Your task to perform on an android device: snooze an email in the gmail app Image 0: 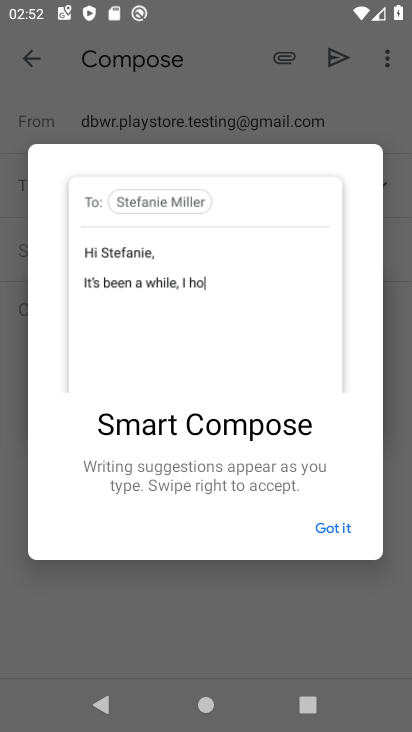
Step 0: press home button
Your task to perform on an android device: snooze an email in the gmail app Image 1: 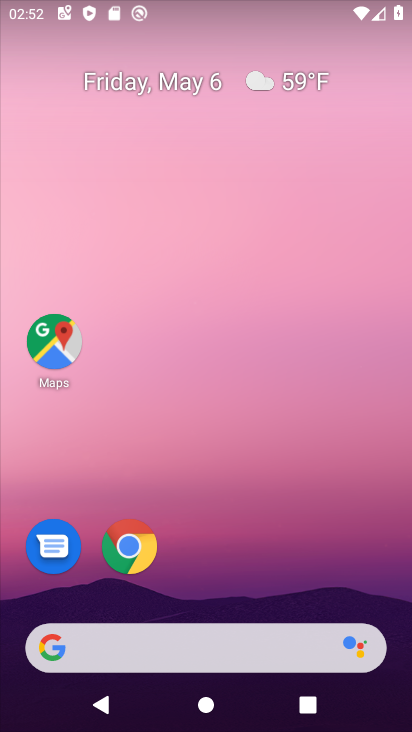
Step 1: drag from (192, 590) to (236, 263)
Your task to perform on an android device: snooze an email in the gmail app Image 2: 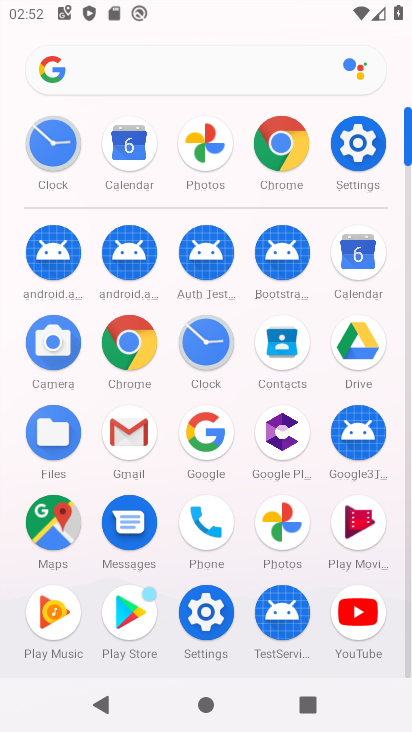
Step 2: click (132, 431)
Your task to perform on an android device: snooze an email in the gmail app Image 3: 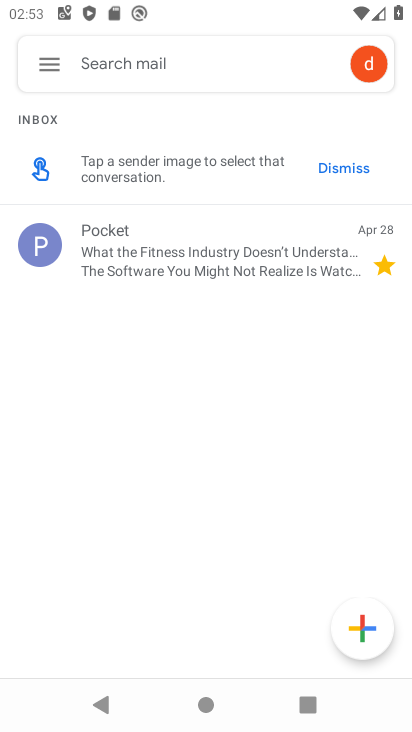
Step 3: click (319, 255)
Your task to perform on an android device: snooze an email in the gmail app Image 4: 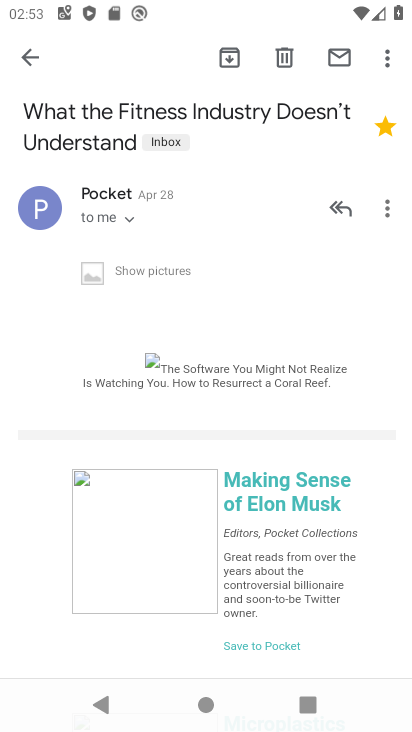
Step 4: click (390, 65)
Your task to perform on an android device: snooze an email in the gmail app Image 5: 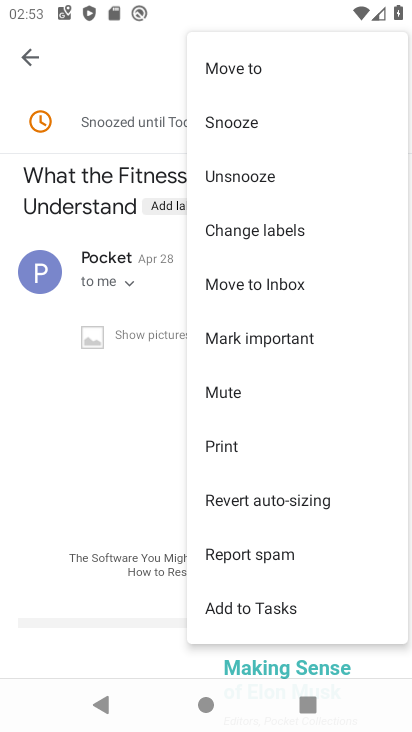
Step 5: click (236, 121)
Your task to perform on an android device: snooze an email in the gmail app Image 6: 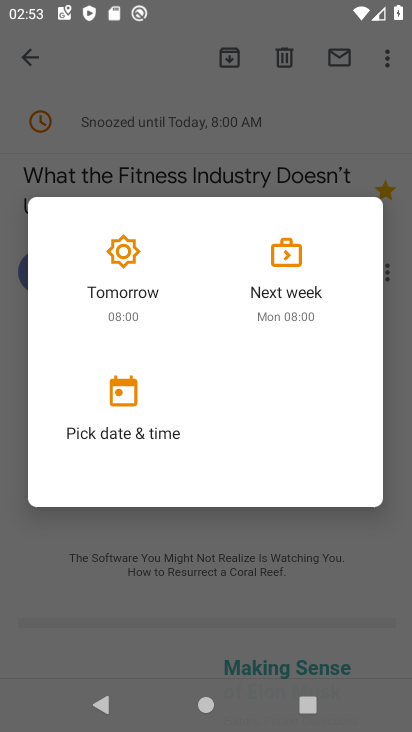
Step 6: click (287, 266)
Your task to perform on an android device: snooze an email in the gmail app Image 7: 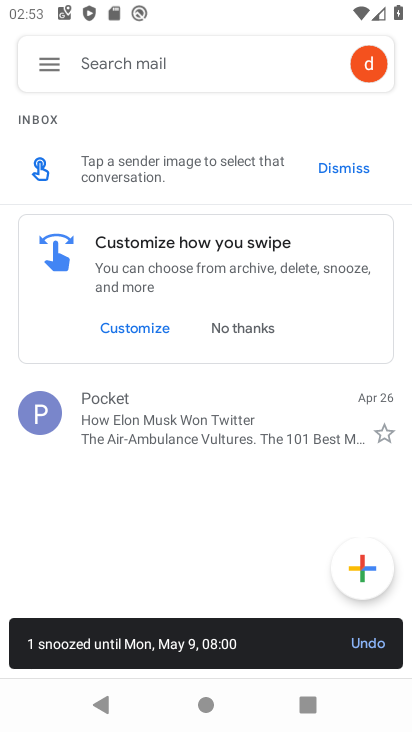
Step 7: task complete